Your task to perform on an android device: Go to sound settings Image 0: 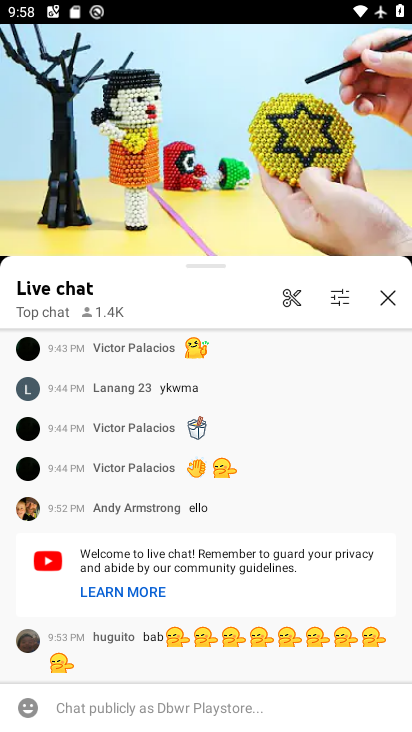
Step 0: press home button
Your task to perform on an android device: Go to sound settings Image 1: 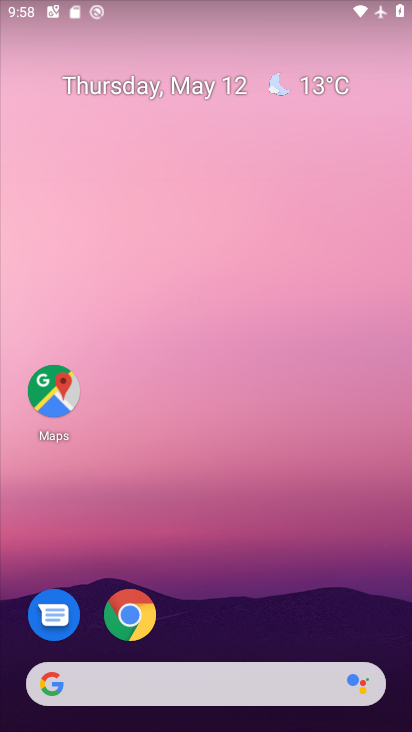
Step 1: drag from (200, 597) to (160, 62)
Your task to perform on an android device: Go to sound settings Image 2: 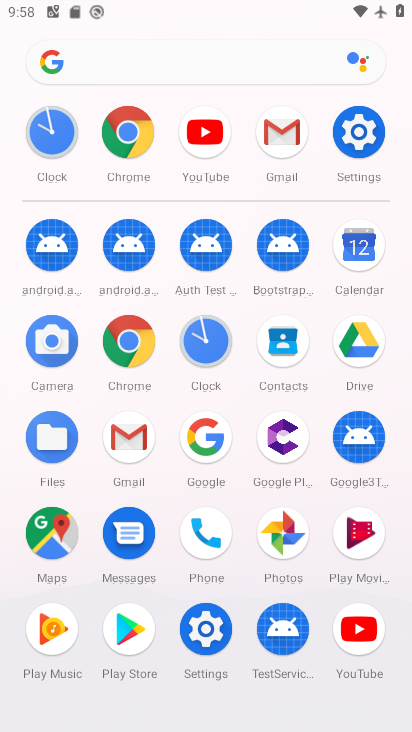
Step 2: click (362, 126)
Your task to perform on an android device: Go to sound settings Image 3: 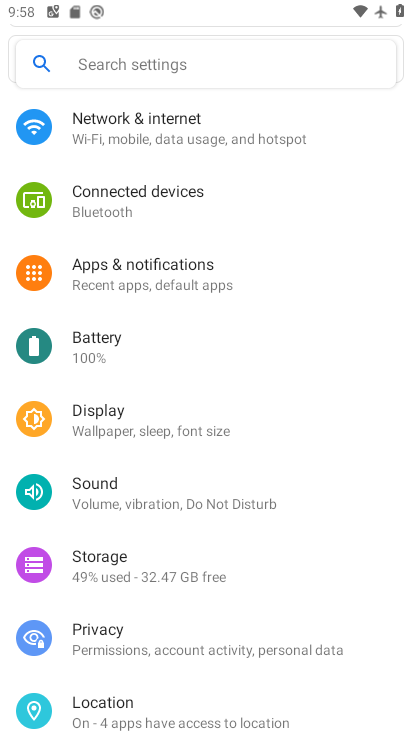
Step 3: click (68, 482)
Your task to perform on an android device: Go to sound settings Image 4: 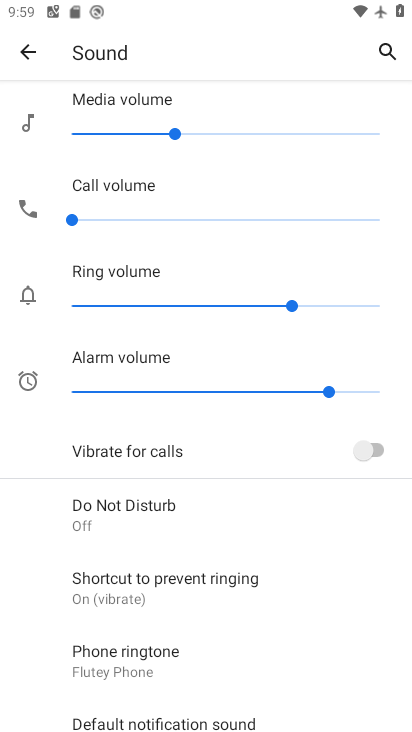
Step 4: task complete